Your task to perform on an android device: turn on the 12-hour format for clock Image 0: 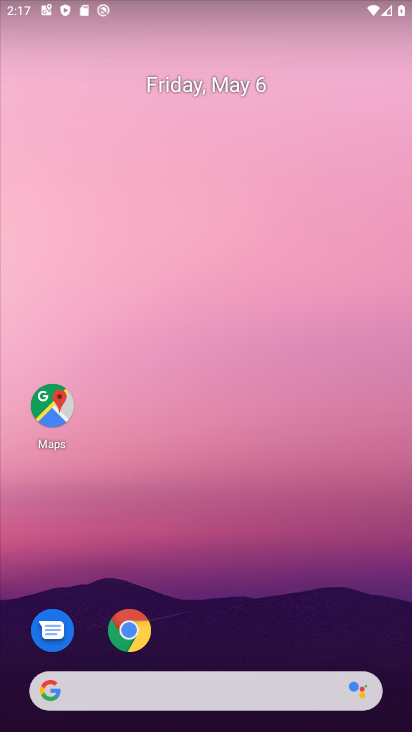
Step 0: drag from (234, 621) to (262, 87)
Your task to perform on an android device: turn on the 12-hour format for clock Image 1: 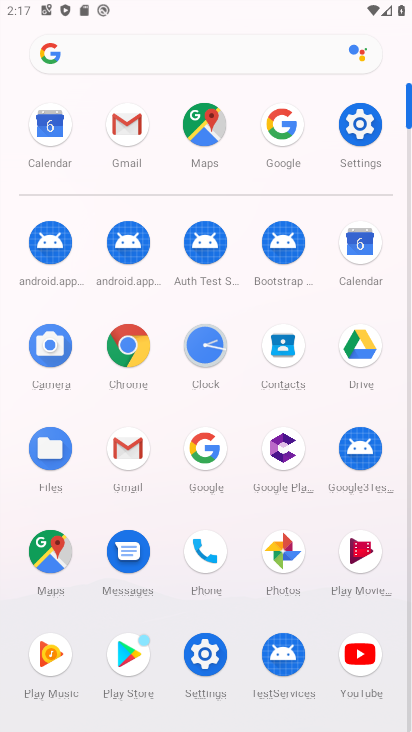
Step 1: click (356, 128)
Your task to perform on an android device: turn on the 12-hour format for clock Image 2: 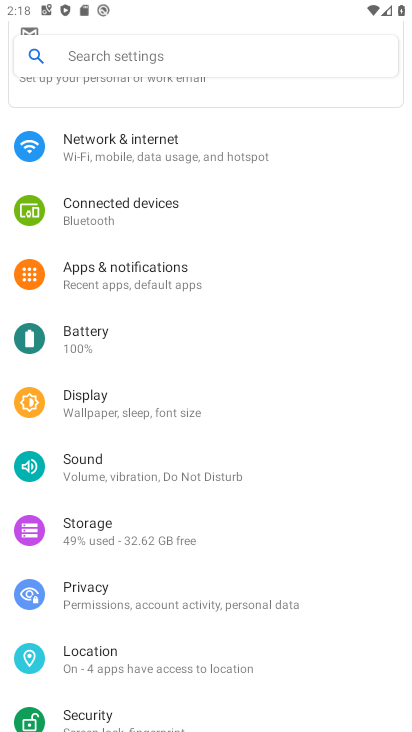
Step 2: drag from (106, 549) to (111, 23)
Your task to perform on an android device: turn on the 12-hour format for clock Image 3: 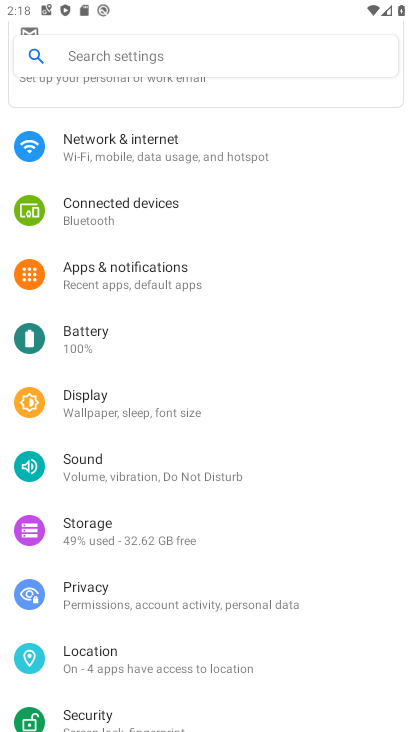
Step 3: drag from (223, 621) to (194, 96)
Your task to perform on an android device: turn on the 12-hour format for clock Image 4: 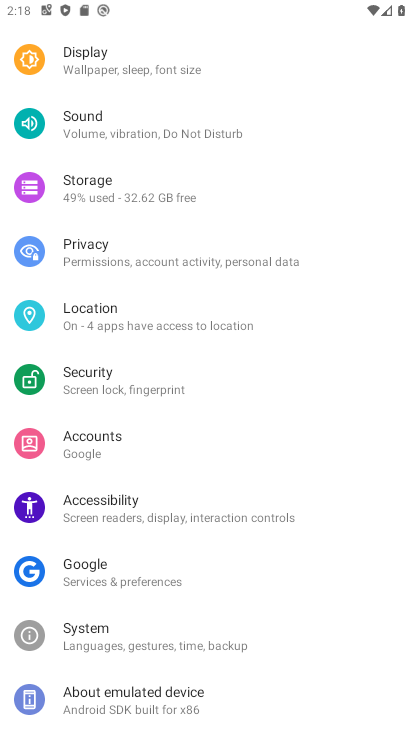
Step 4: click (132, 643)
Your task to perform on an android device: turn on the 12-hour format for clock Image 5: 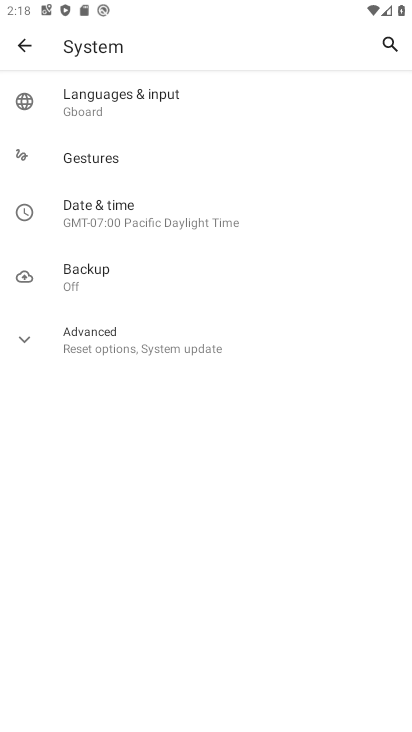
Step 5: click (107, 218)
Your task to perform on an android device: turn on the 12-hour format for clock Image 6: 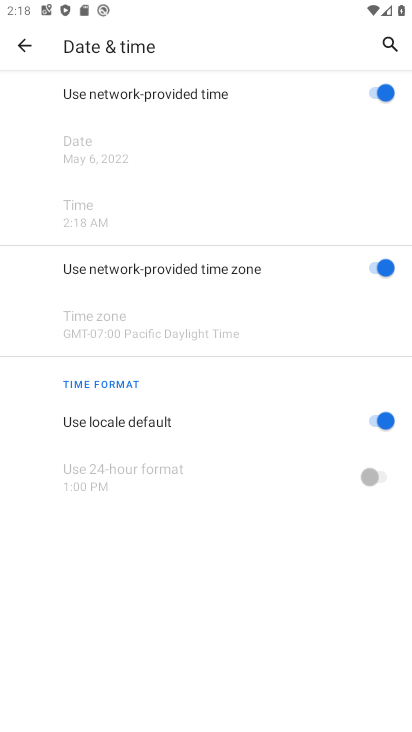
Step 6: task complete